Your task to perform on an android device: turn notification dots on Image 0: 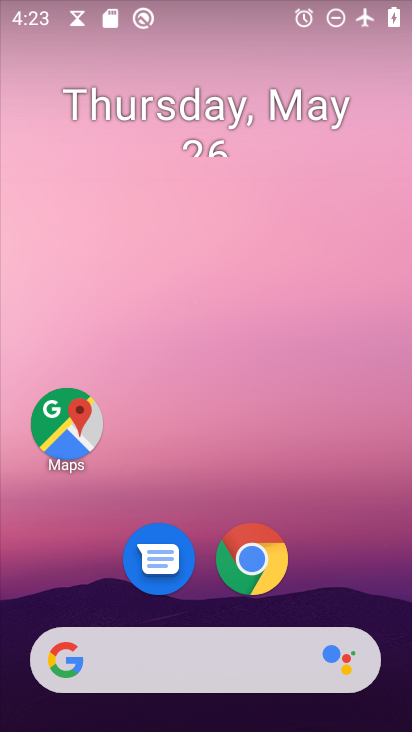
Step 0: drag from (342, 511) to (234, 18)
Your task to perform on an android device: turn notification dots on Image 1: 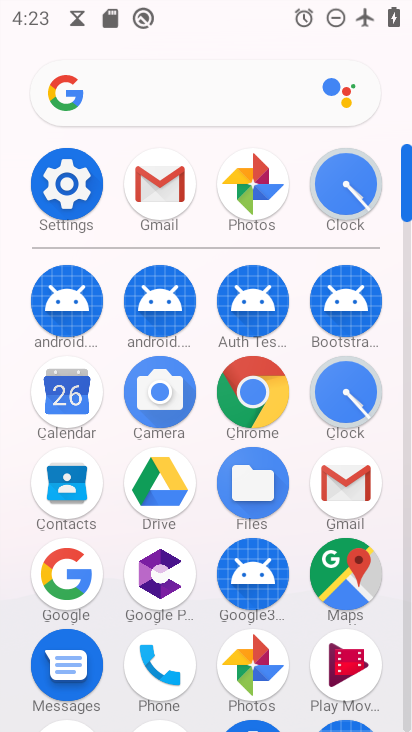
Step 1: click (67, 188)
Your task to perform on an android device: turn notification dots on Image 2: 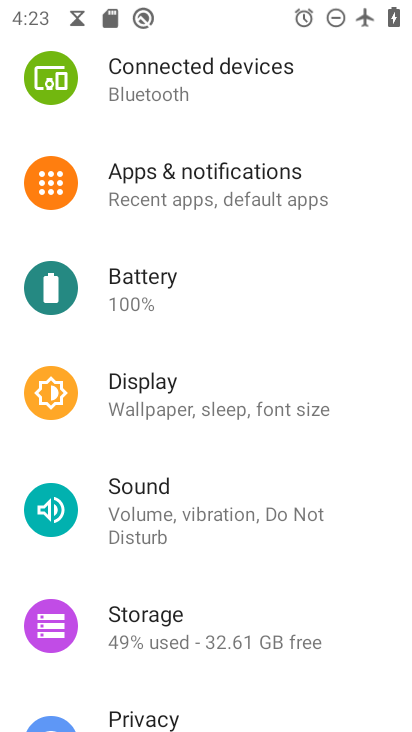
Step 2: click (219, 176)
Your task to perform on an android device: turn notification dots on Image 3: 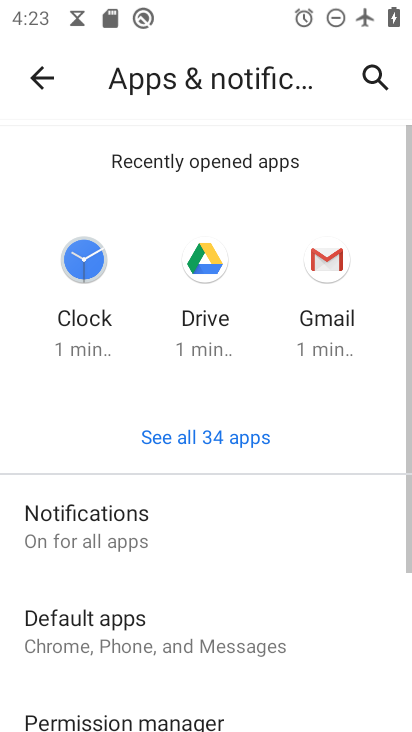
Step 3: click (210, 528)
Your task to perform on an android device: turn notification dots on Image 4: 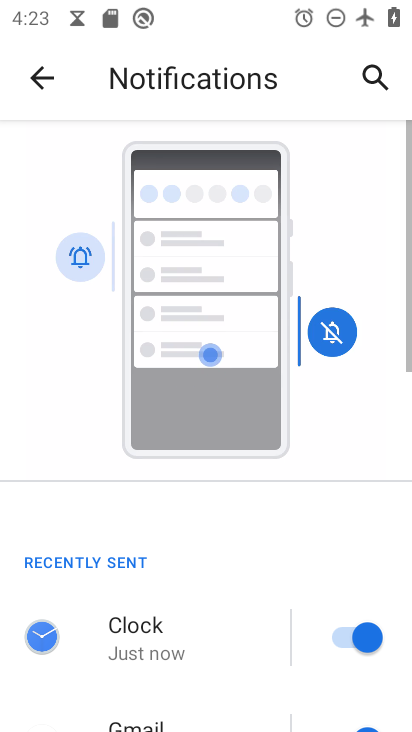
Step 4: drag from (235, 641) to (243, 61)
Your task to perform on an android device: turn notification dots on Image 5: 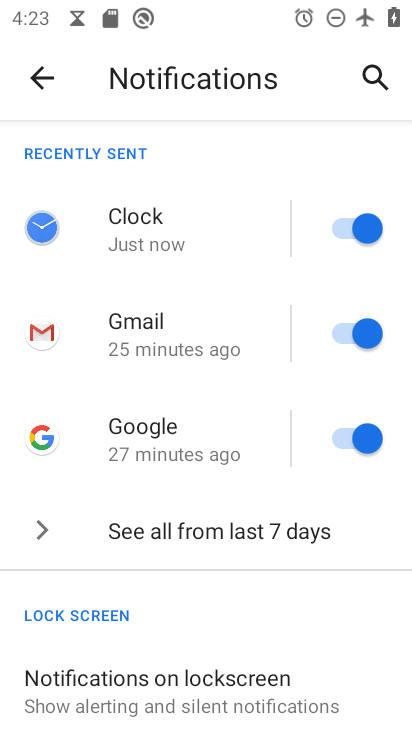
Step 5: drag from (229, 641) to (172, 172)
Your task to perform on an android device: turn notification dots on Image 6: 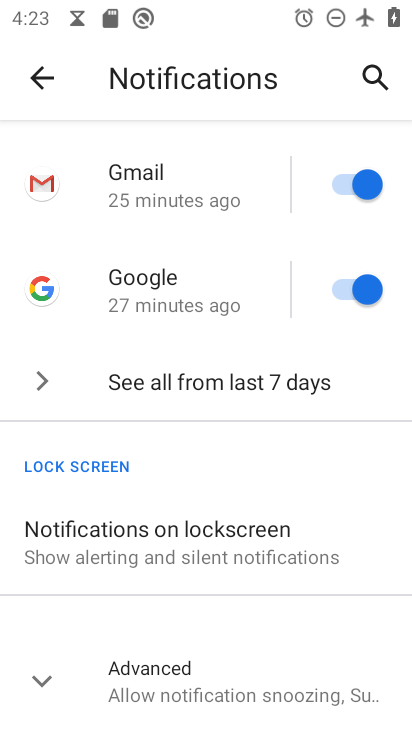
Step 6: drag from (231, 627) to (242, 191)
Your task to perform on an android device: turn notification dots on Image 7: 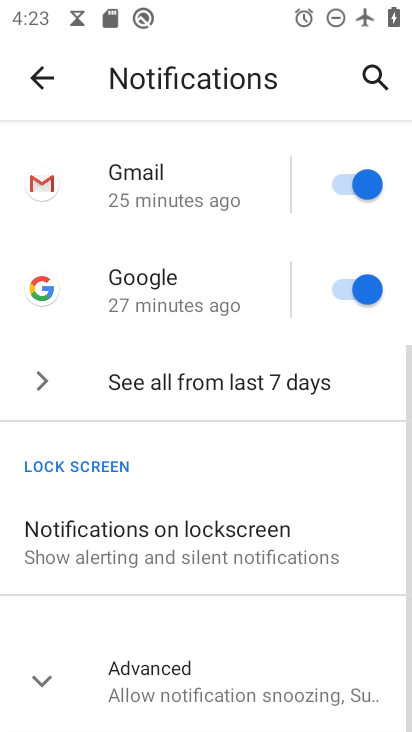
Step 7: click (194, 679)
Your task to perform on an android device: turn notification dots on Image 8: 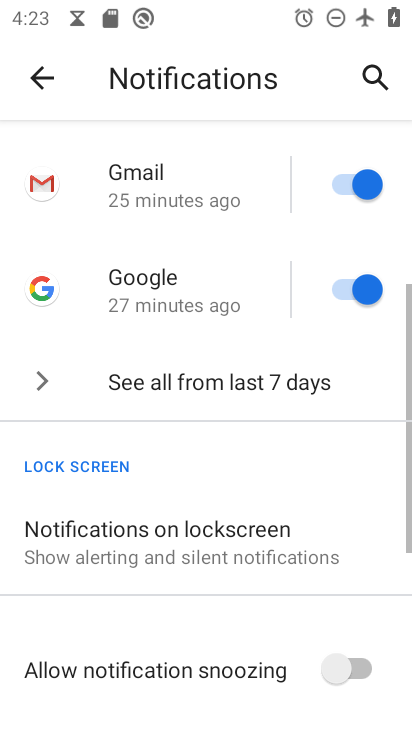
Step 8: drag from (231, 633) to (242, 41)
Your task to perform on an android device: turn notification dots on Image 9: 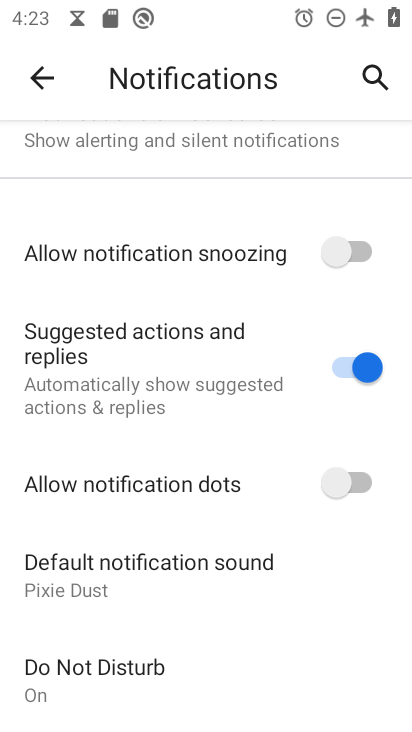
Step 9: click (352, 483)
Your task to perform on an android device: turn notification dots on Image 10: 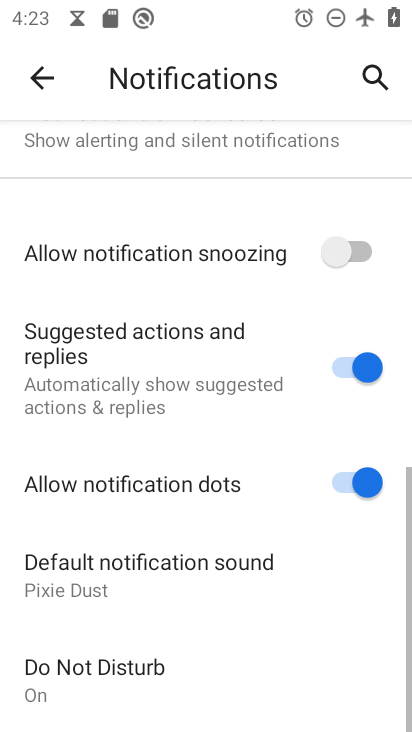
Step 10: task complete